Your task to perform on an android device: open a new tab in the chrome app Image 0: 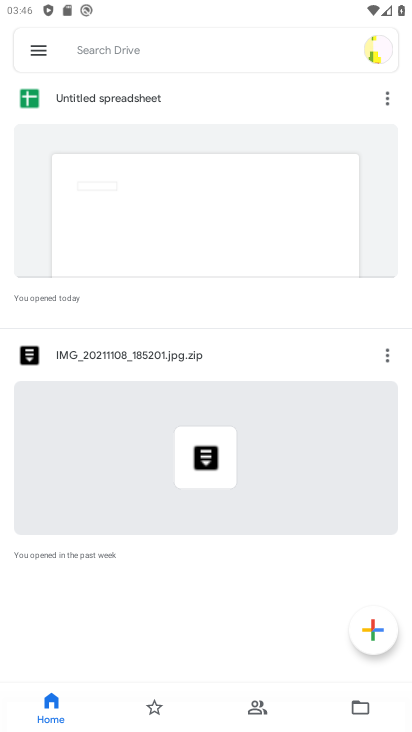
Step 0: press home button
Your task to perform on an android device: open a new tab in the chrome app Image 1: 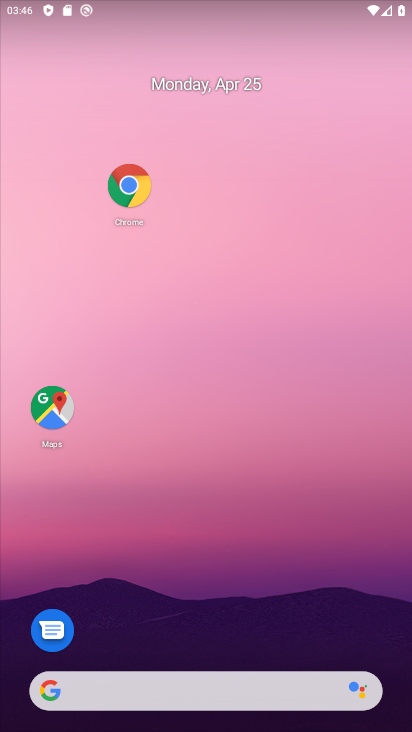
Step 1: click (127, 188)
Your task to perform on an android device: open a new tab in the chrome app Image 2: 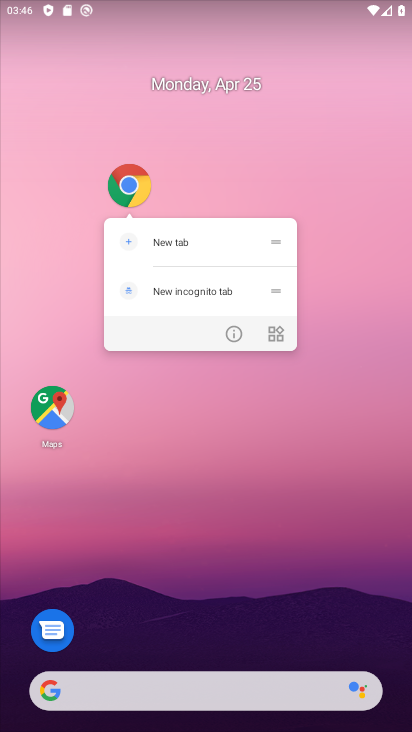
Step 2: click (234, 335)
Your task to perform on an android device: open a new tab in the chrome app Image 3: 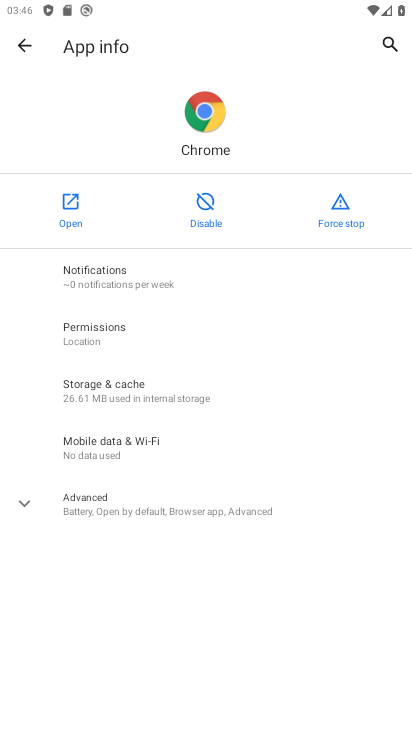
Step 3: click (70, 218)
Your task to perform on an android device: open a new tab in the chrome app Image 4: 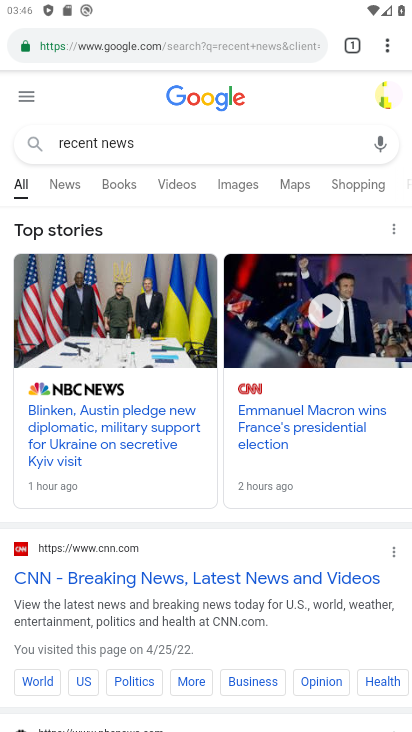
Step 4: click (387, 44)
Your task to perform on an android device: open a new tab in the chrome app Image 5: 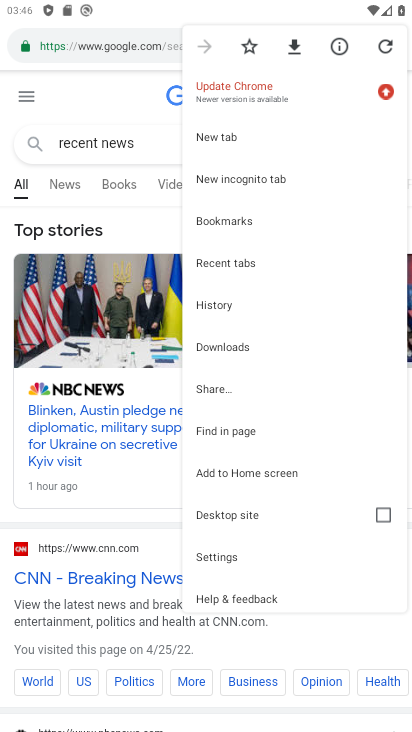
Step 5: click (218, 147)
Your task to perform on an android device: open a new tab in the chrome app Image 6: 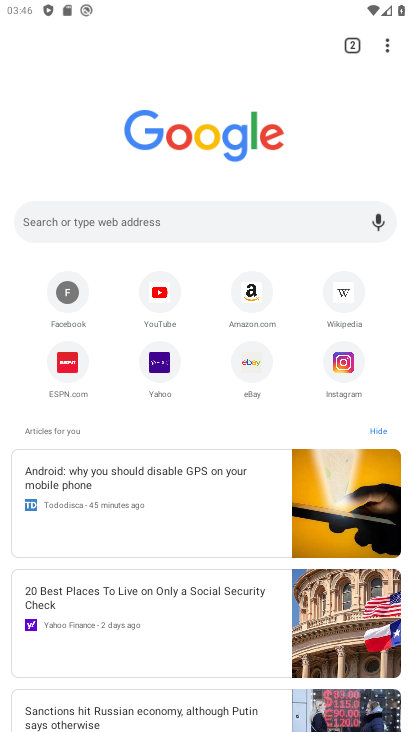
Step 6: task complete